Your task to perform on an android device: add a contact Image 0: 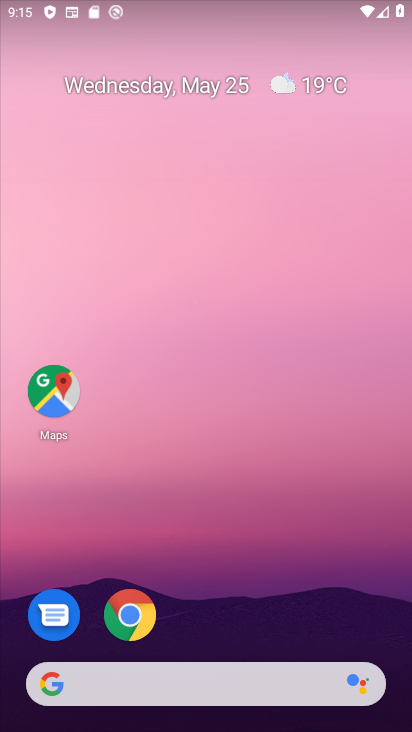
Step 0: drag from (253, 719) to (285, 178)
Your task to perform on an android device: add a contact Image 1: 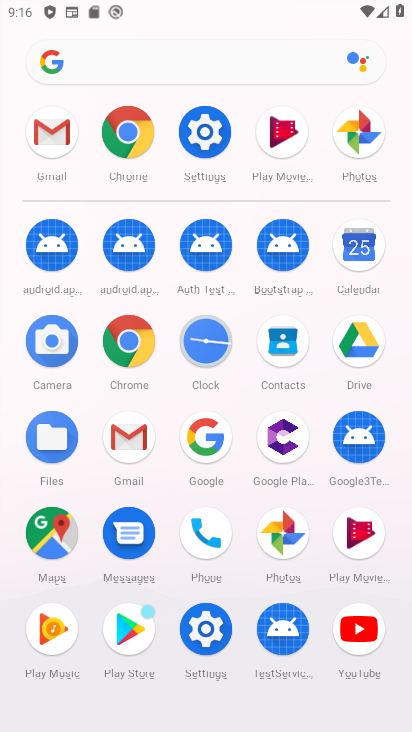
Step 1: click (191, 548)
Your task to perform on an android device: add a contact Image 2: 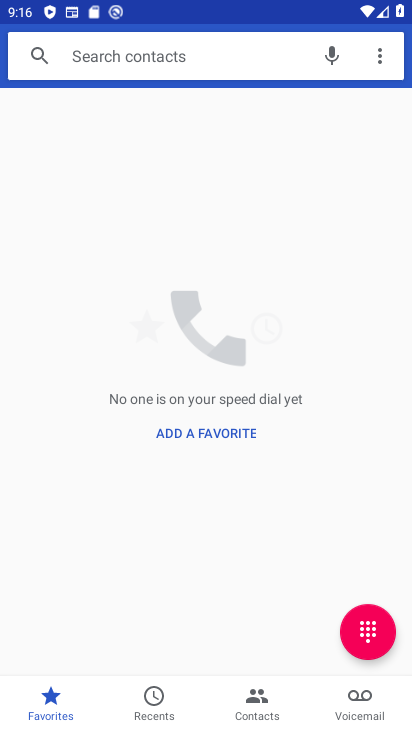
Step 2: click (256, 696)
Your task to perform on an android device: add a contact Image 3: 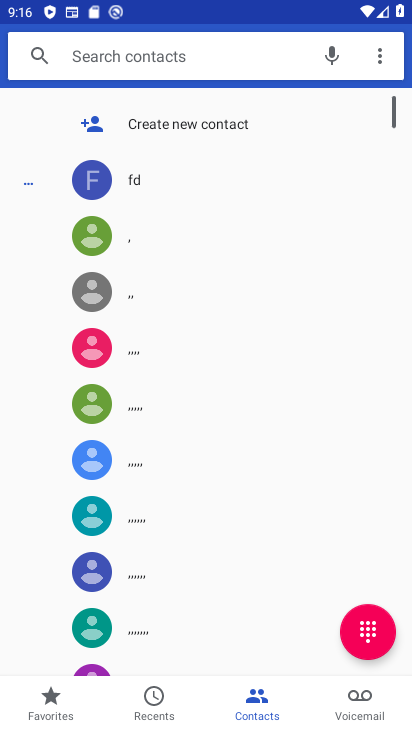
Step 3: click (207, 128)
Your task to perform on an android device: add a contact Image 4: 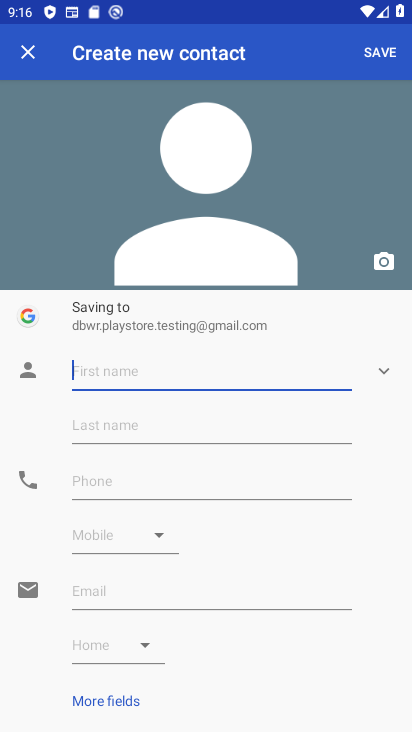
Step 4: click (118, 370)
Your task to perform on an android device: add a contact Image 5: 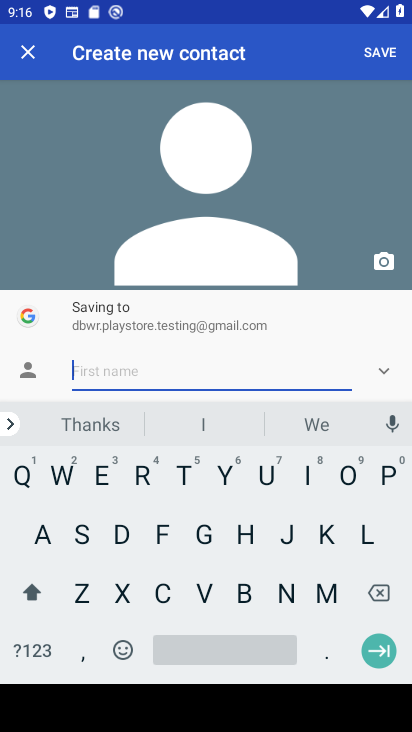
Step 5: click (130, 531)
Your task to perform on an android device: add a contact Image 6: 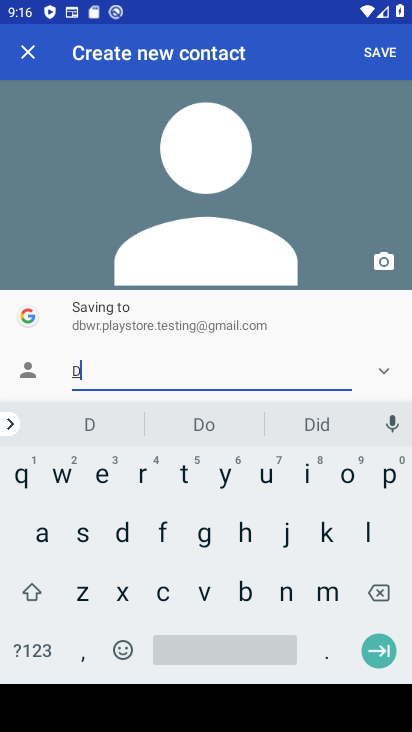
Step 6: click (151, 534)
Your task to perform on an android device: add a contact Image 7: 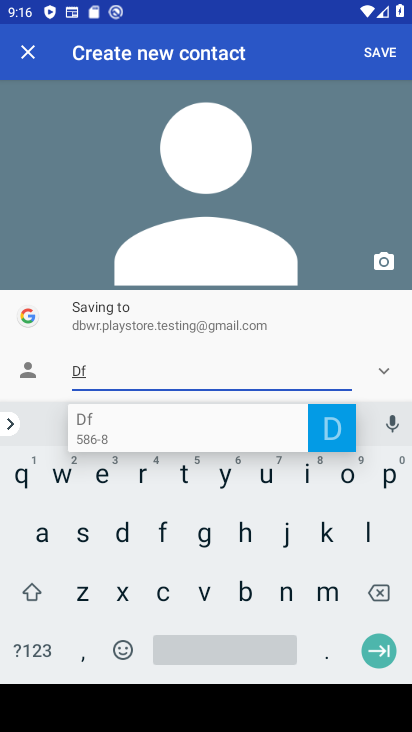
Step 7: click (256, 569)
Your task to perform on an android device: add a contact Image 8: 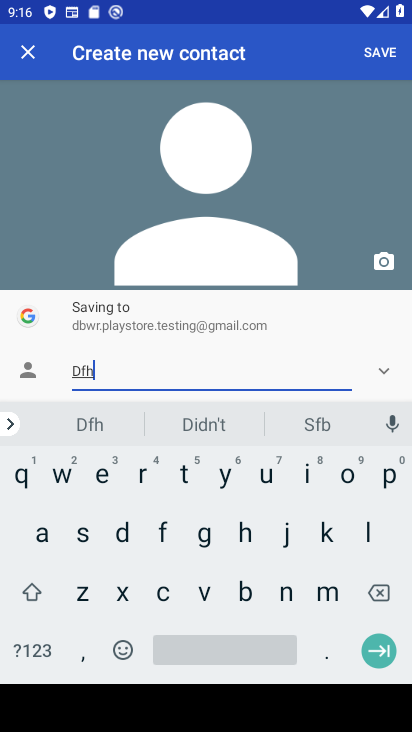
Step 8: drag from (198, 362) to (238, 267)
Your task to perform on an android device: add a contact Image 9: 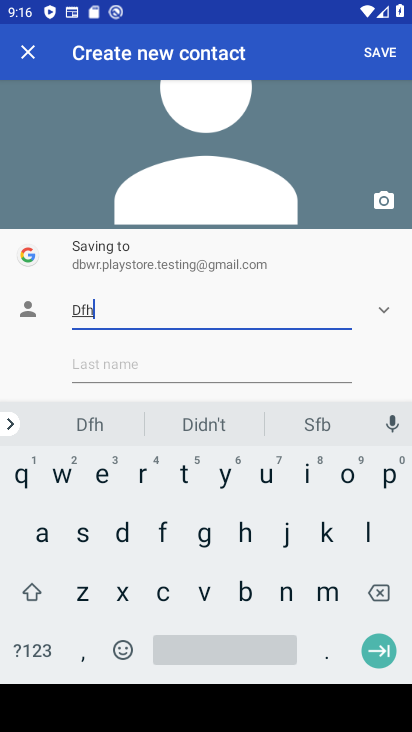
Step 9: click (151, 365)
Your task to perform on an android device: add a contact Image 10: 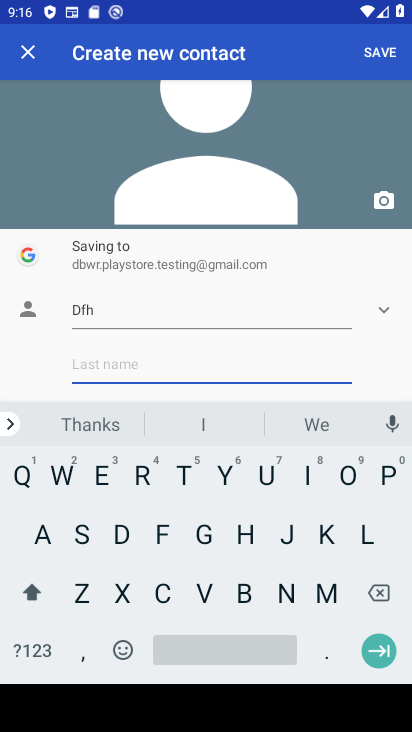
Step 10: click (143, 518)
Your task to perform on an android device: add a contact Image 11: 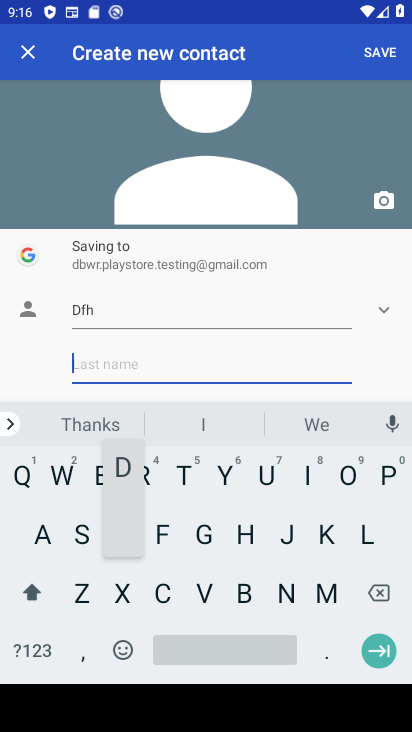
Step 11: click (104, 528)
Your task to perform on an android device: add a contact Image 12: 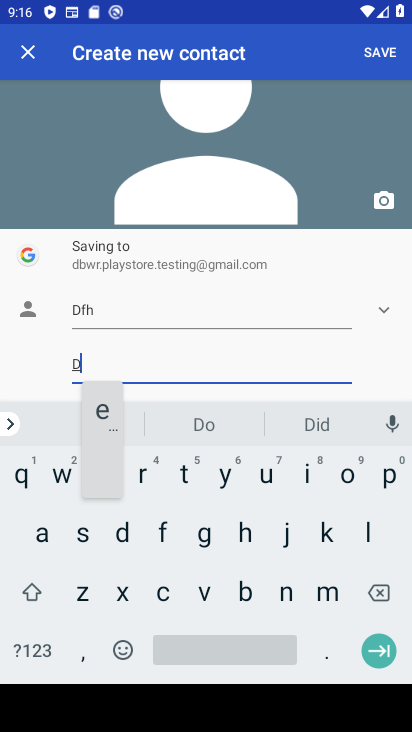
Step 12: click (190, 566)
Your task to perform on an android device: add a contact Image 13: 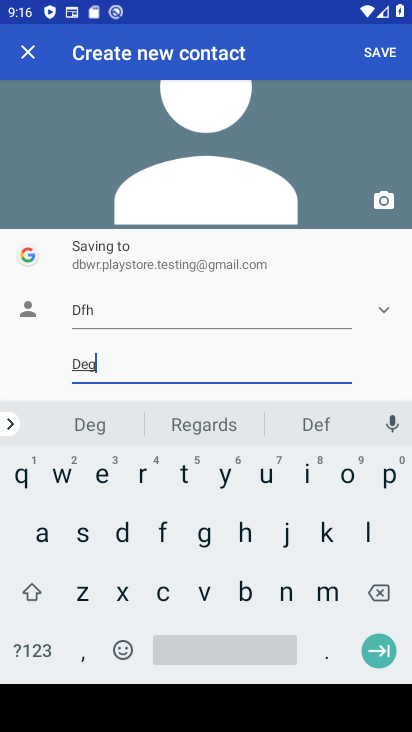
Step 13: drag from (244, 341) to (260, 253)
Your task to perform on an android device: add a contact Image 14: 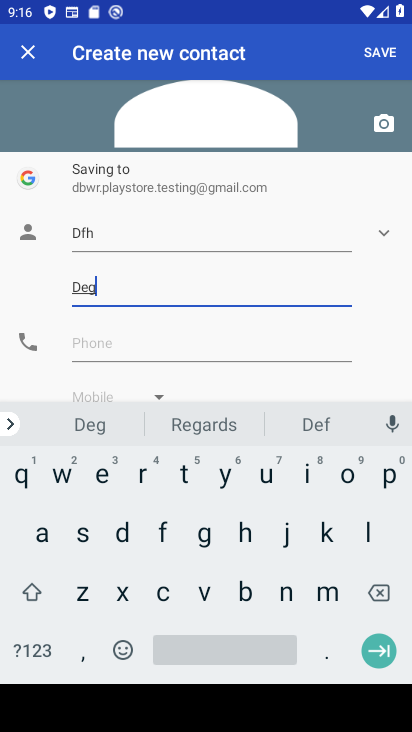
Step 14: click (143, 333)
Your task to perform on an android device: add a contact Image 15: 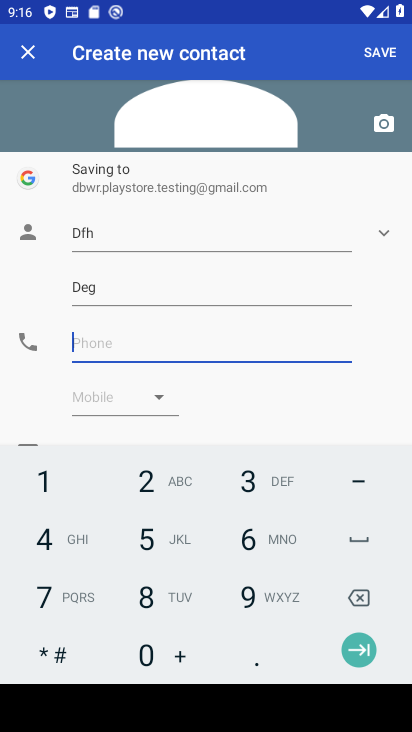
Step 15: click (142, 556)
Your task to perform on an android device: add a contact Image 16: 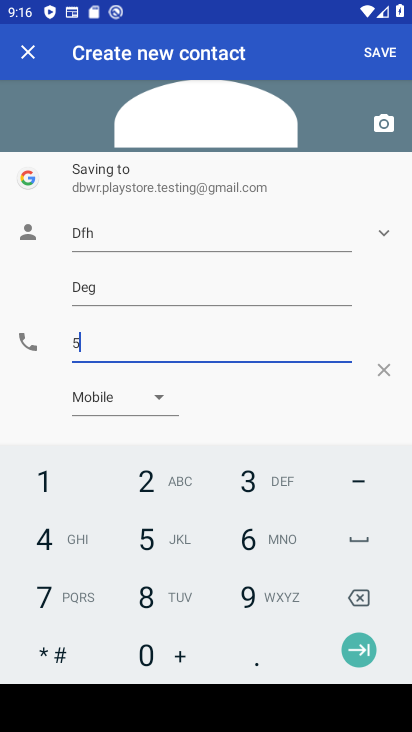
Step 16: click (92, 573)
Your task to perform on an android device: add a contact Image 17: 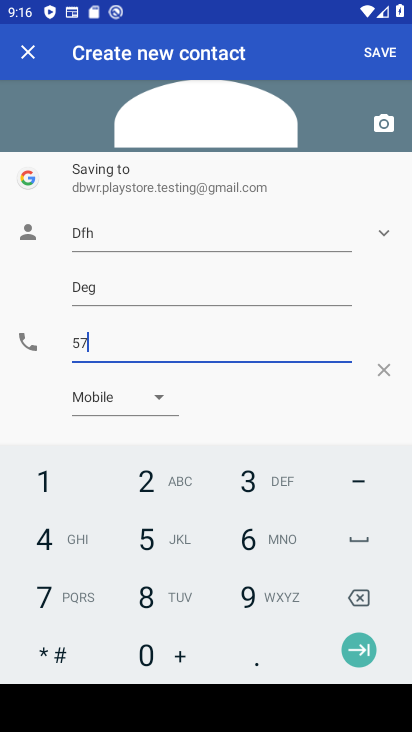
Step 17: click (301, 571)
Your task to perform on an android device: add a contact Image 18: 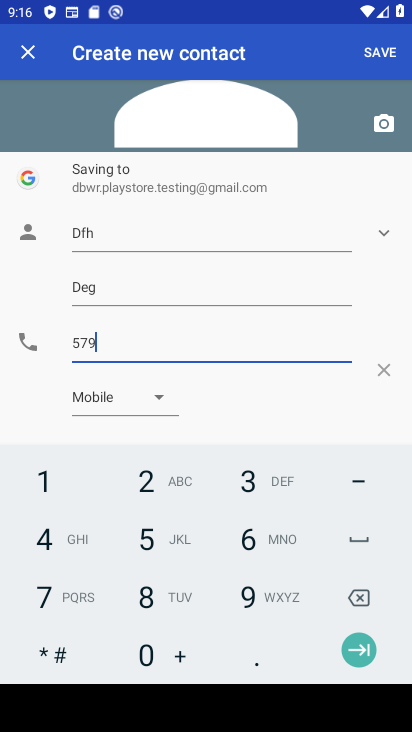
Step 18: click (207, 591)
Your task to perform on an android device: add a contact Image 19: 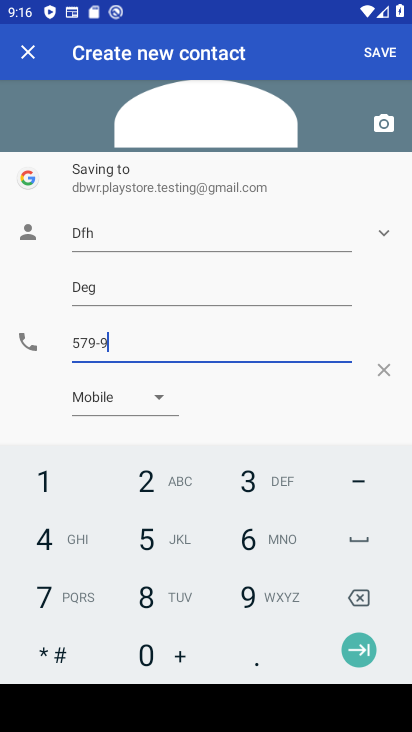
Step 19: click (217, 576)
Your task to perform on an android device: add a contact Image 20: 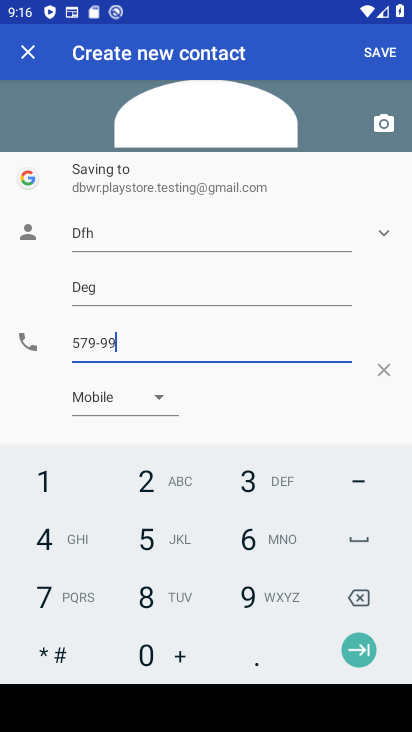
Step 20: click (378, 59)
Your task to perform on an android device: add a contact Image 21: 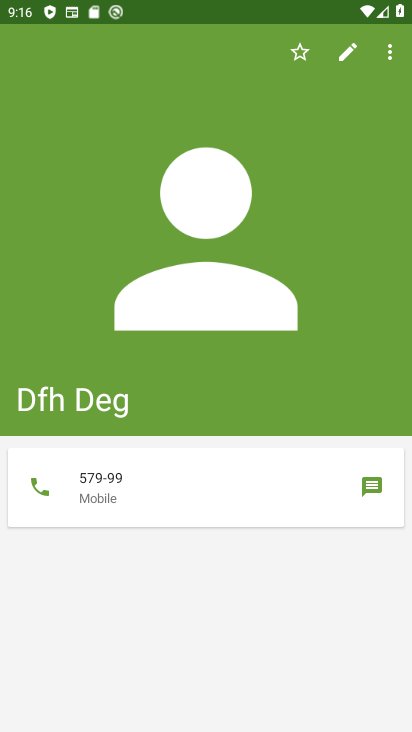
Step 21: task complete